Your task to perform on an android device: Go to sound settings Image 0: 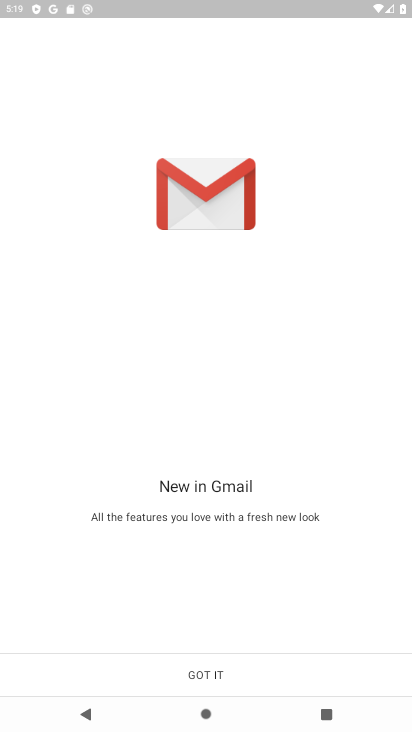
Step 0: press home button
Your task to perform on an android device: Go to sound settings Image 1: 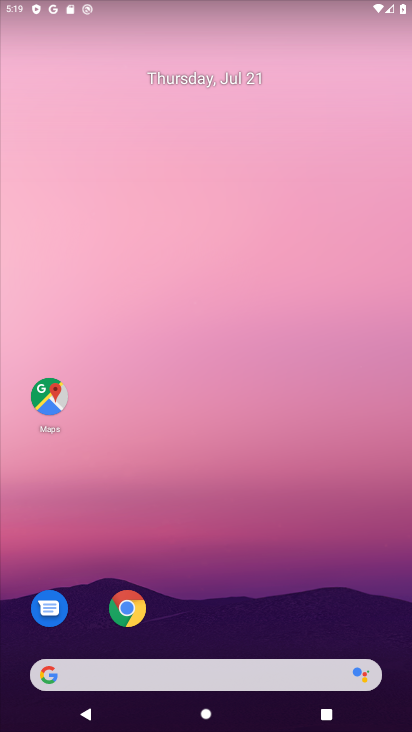
Step 1: drag from (189, 563) to (153, 111)
Your task to perform on an android device: Go to sound settings Image 2: 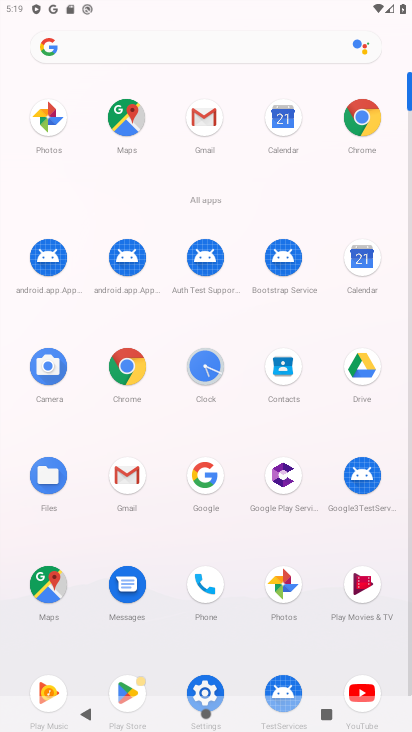
Step 2: click (207, 686)
Your task to perform on an android device: Go to sound settings Image 3: 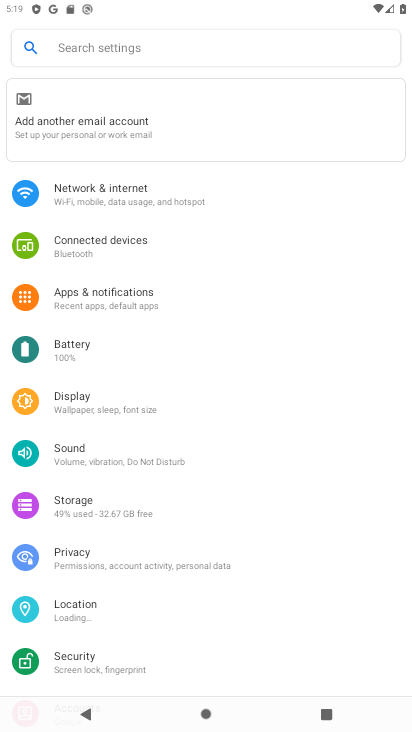
Step 3: click (69, 449)
Your task to perform on an android device: Go to sound settings Image 4: 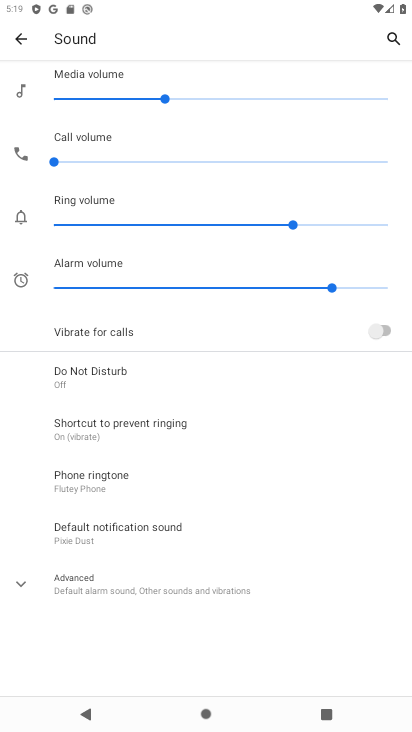
Step 4: task complete